Your task to perform on an android device: toggle data saver in the chrome app Image 0: 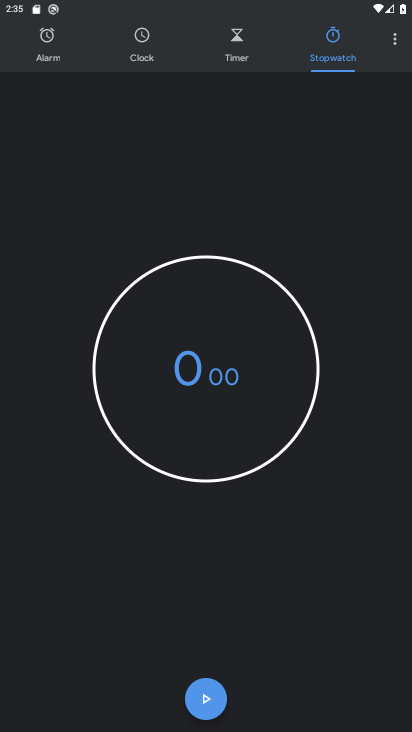
Step 0: press home button
Your task to perform on an android device: toggle data saver in the chrome app Image 1: 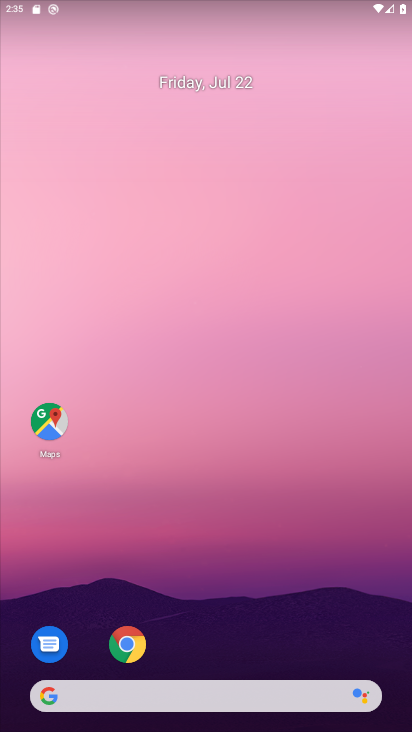
Step 1: click (134, 653)
Your task to perform on an android device: toggle data saver in the chrome app Image 2: 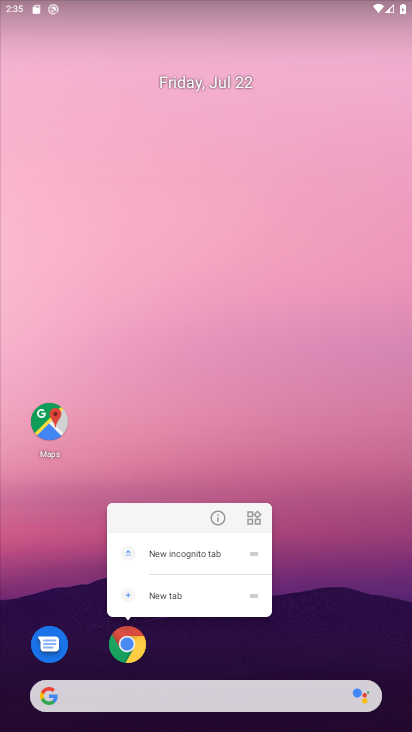
Step 2: click (134, 653)
Your task to perform on an android device: toggle data saver in the chrome app Image 3: 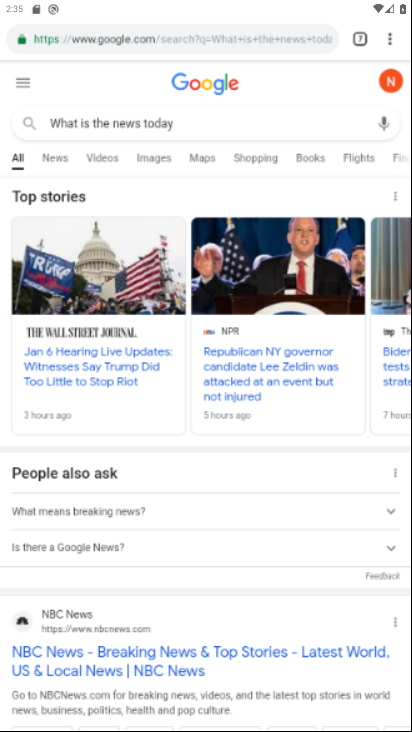
Step 3: click (132, 651)
Your task to perform on an android device: toggle data saver in the chrome app Image 4: 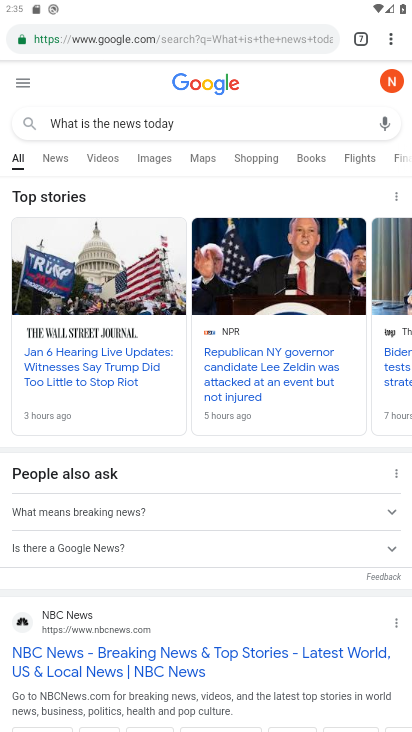
Step 4: click (404, 32)
Your task to perform on an android device: toggle data saver in the chrome app Image 5: 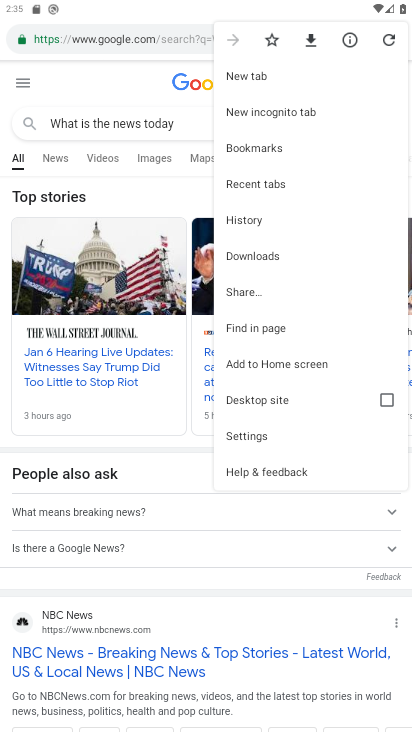
Step 5: click (276, 434)
Your task to perform on an android device: toggle data saver in the chrome app Image 6: 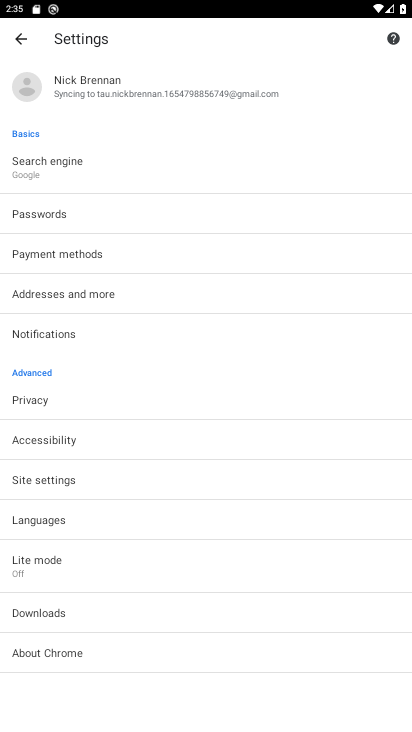
Step 6: click (72, 553)
Your task to perform on an android device: toggle data saver in the chrome app Image 7: 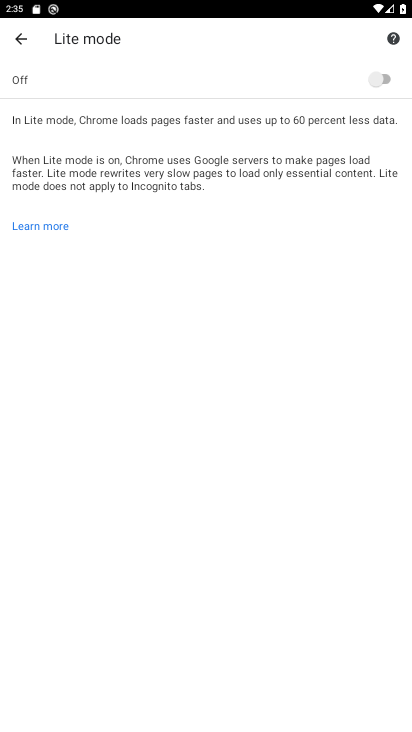
Step 7: click (382, 75)
Your task to perform on an android device: toggle data saver in the chrome app Image 8: 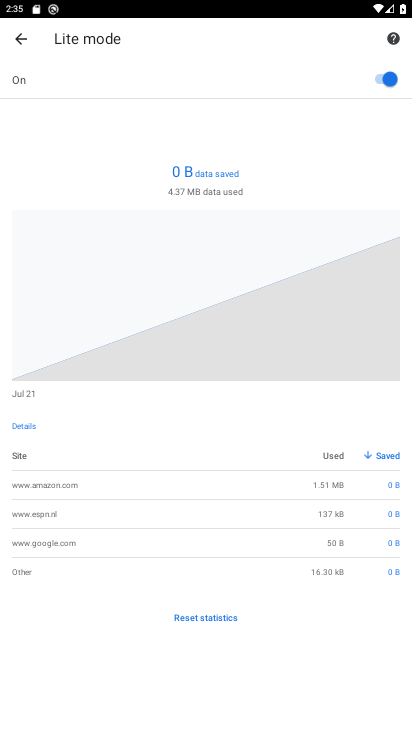
Step 8: task complete